Your task to perform on an android device: What's the weather? Image 0: 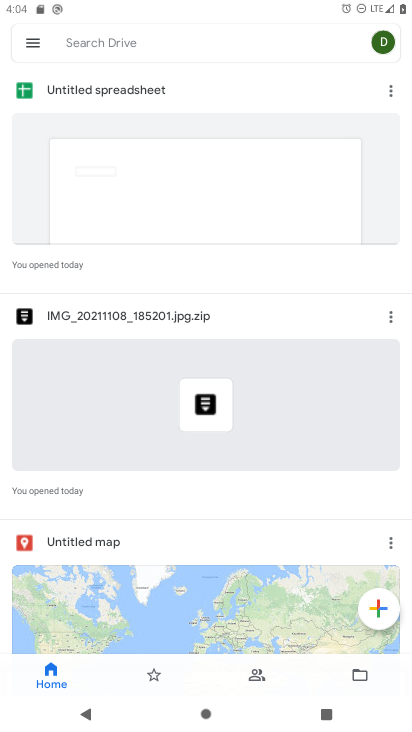
Step 0: press home button
Your task to perform on an android device: What's the weather? Image 1: 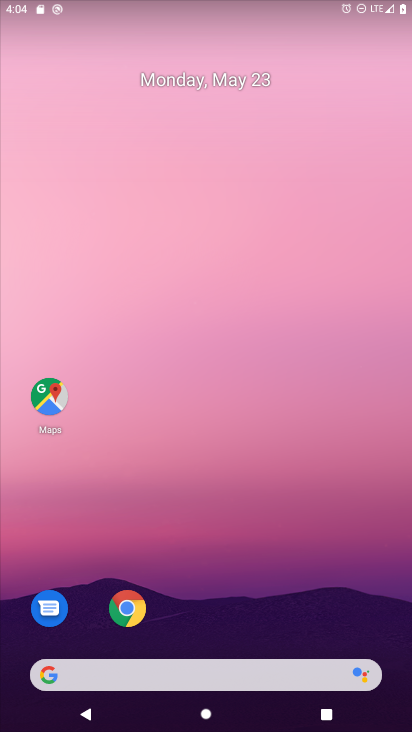
Step 1: drag from (222, 597) to (180, 50)
Your task to perform on an android device: What's the weather? Image 2: 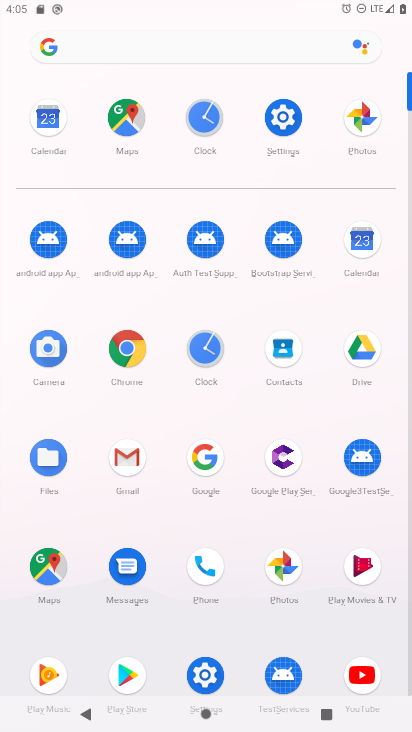
Step 2: click (203, 455)
Your task to perform on an android device: What's the weather? Image 3: 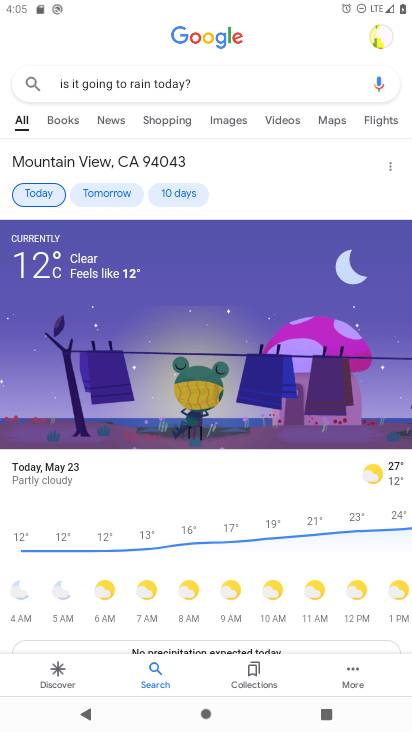
Step 3: task complete